Your task to perform on an android device: add a contact in the contacts app Image 0: 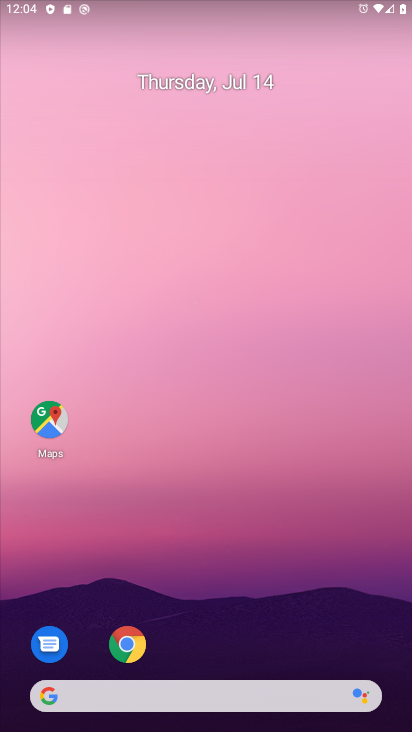
Step 0: click (261, 383)
Your task to perform on an android device: add a contact in the contacts app Image 1: 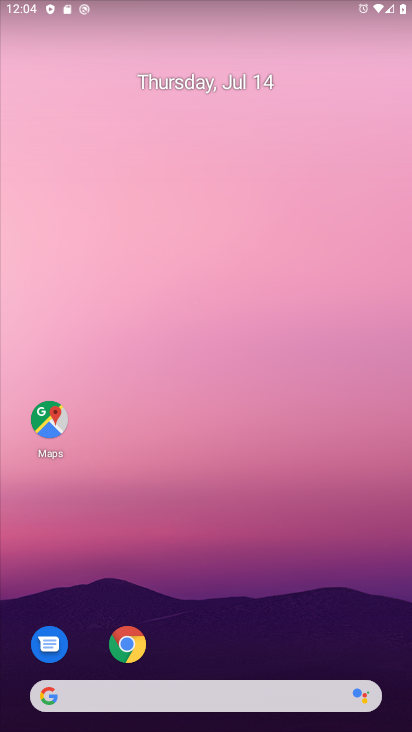
Step 1: drag from (204, 669) to (200, 142)
Your task to perform on an android device: add a contact in the contacts app Image 2: 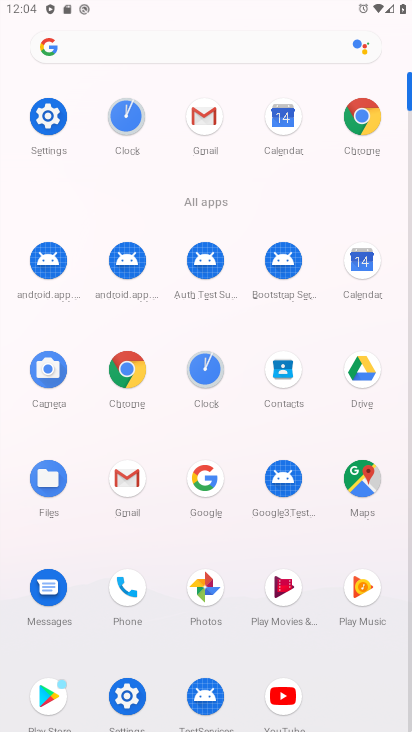
Step 2: click (133, 586)
Your task to perform on an android device: add a contact in the contacts app Image 3: 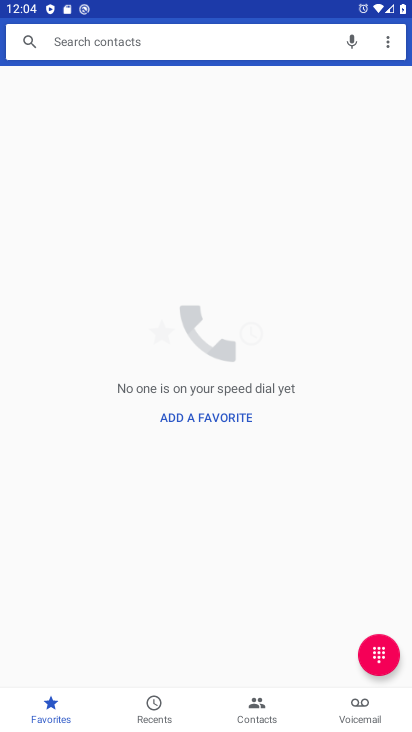
Step 3: click (254, 717)
Your task to perform on an android device: add a contact in the contacts app Image 4: 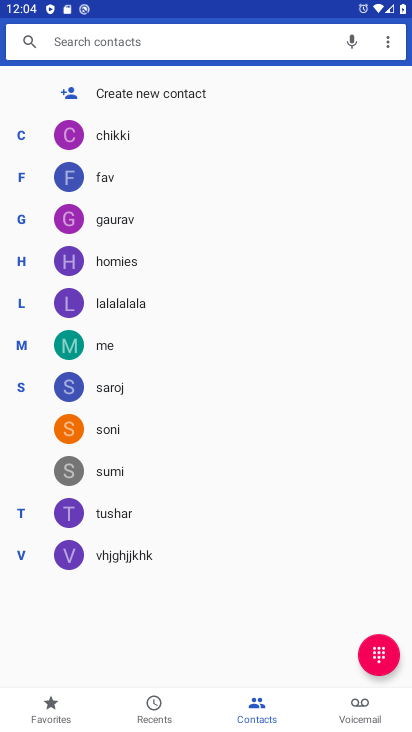
Step 4: click (111, 99)
Your task to perform on an android device: add a contact in the contacts app Image 5: 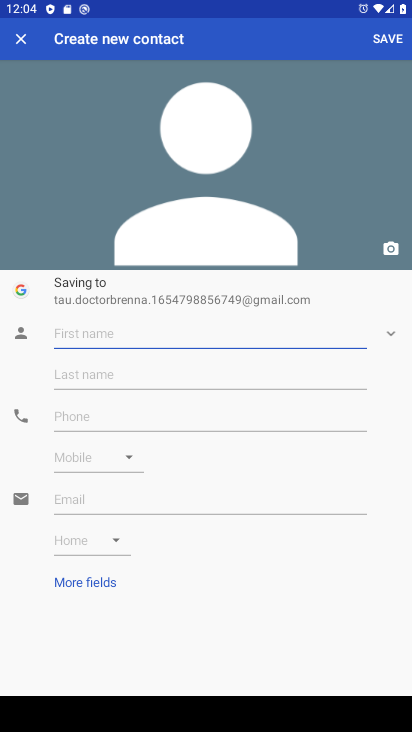
Step 5: type "fvd"
Your task to perform on an android device: add a contact in the contacts app Image 6: 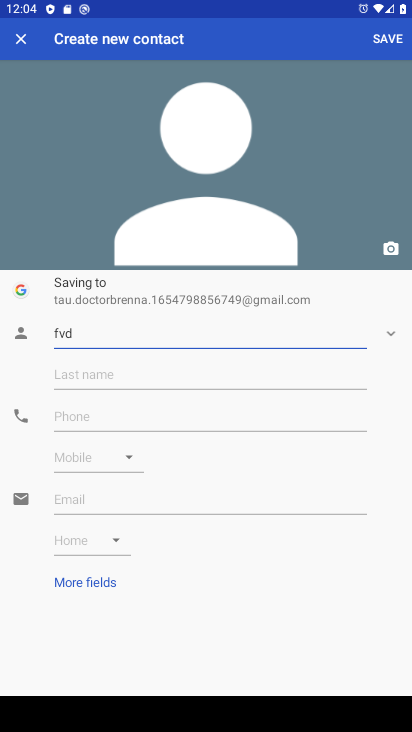
Step 6: click (295, 412)
Your task to perform on an android device: add a contact in the contacts app Image 7: 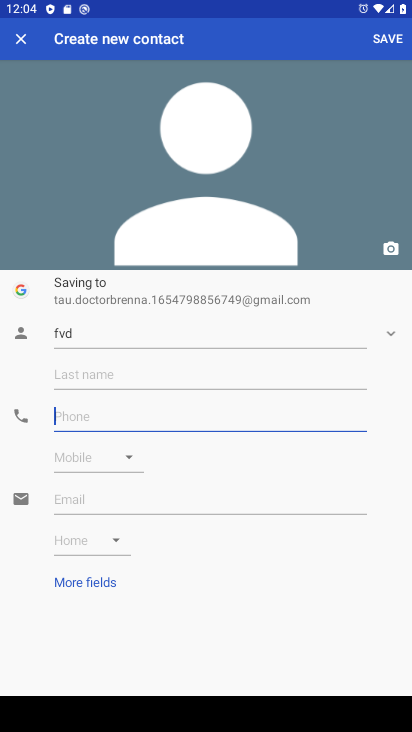
Step 7: type "43334"
Your task to perform on an android device: add a contact in the contacts app Image 8: 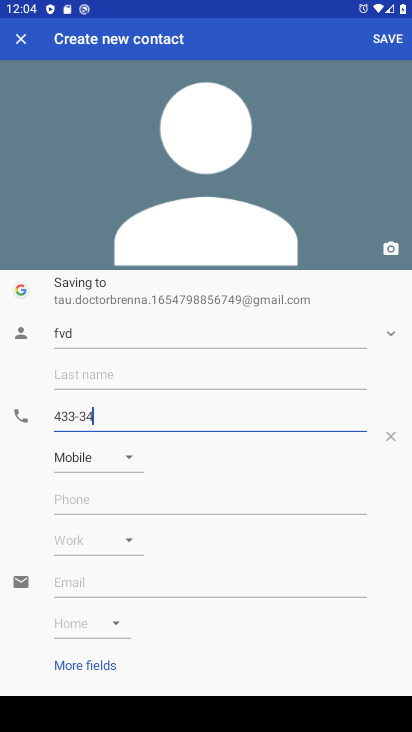
Step 8: click (385, 41)
Your task to perform on an android device: add a contact in the contacts app Image 9: 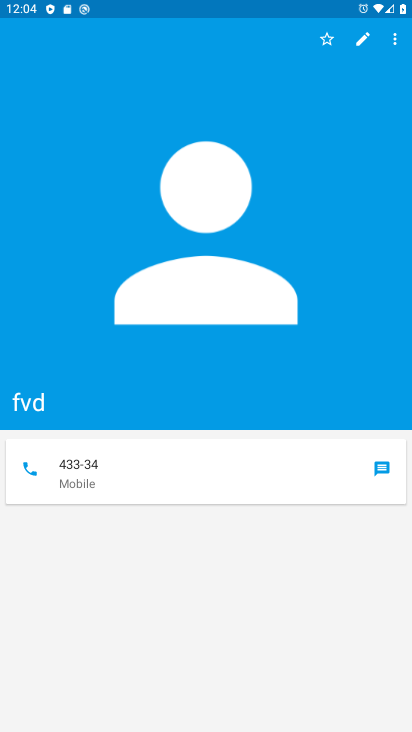
Step 9: task complete